Your task to perform on an android device: Check the news Image 0: 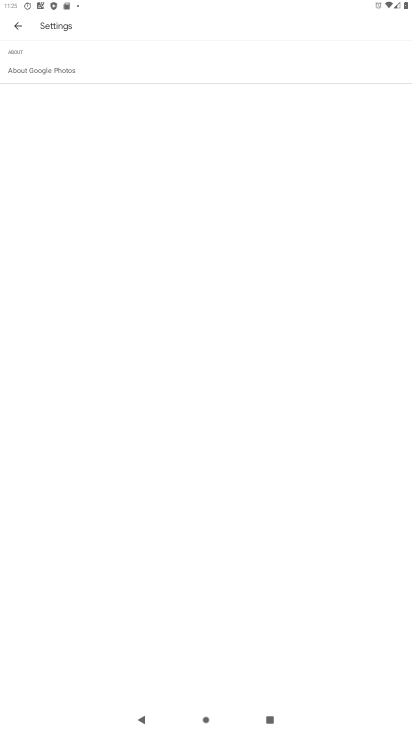
Step 0: press home button
Your task to perform on an android device: Check the news Image 1: 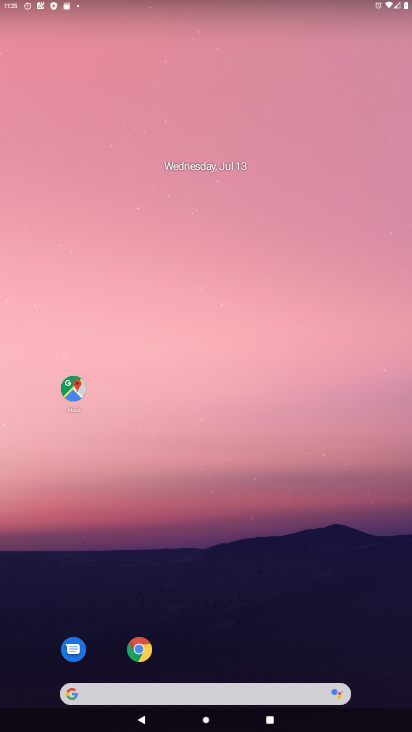
Step 1: drag from (163, 688) to (202, 170)
Your task to perform on an android device: Check the news Image 2: 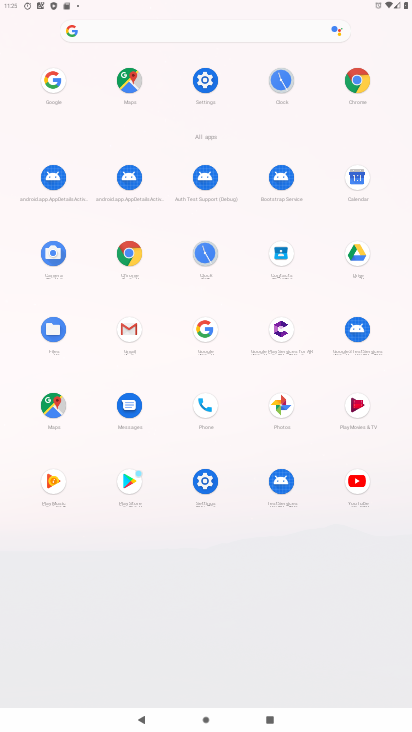
Step 2: click (50, 80)
Your task to perform on an android device: Check the news Image 3: 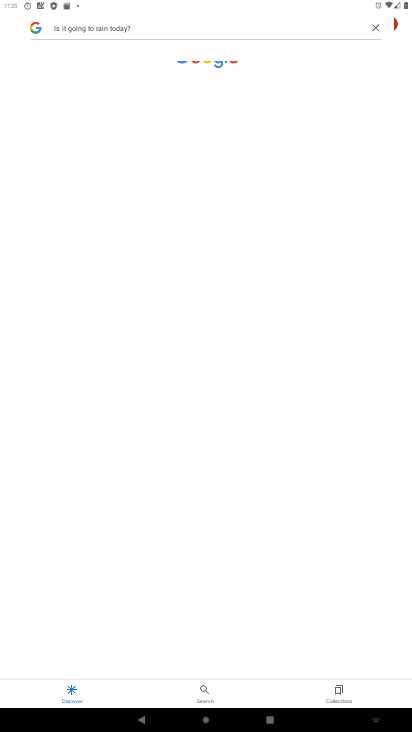
Step 3: click (374, 27)
Your task to perform on an android device: Check the news Image 4: 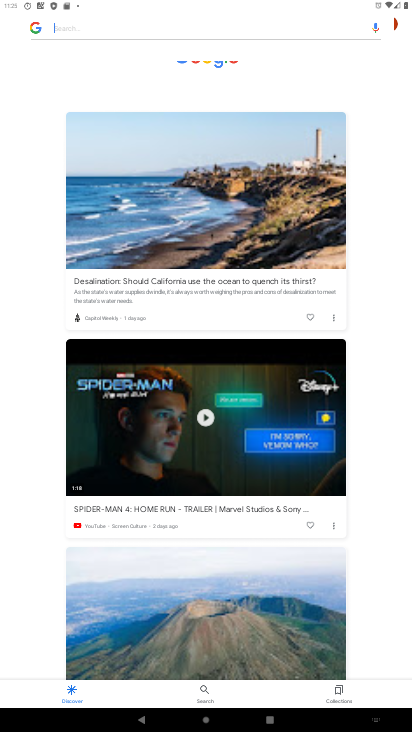
Step 4: type "news"
Your task to perform on an android device: Check the news Image 5: 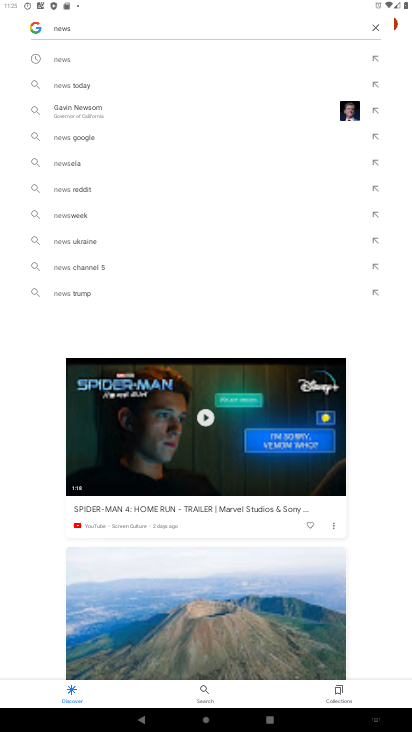
Step 5: click (69, 60)
Your task to perform on an android device: Check the news Image 6: 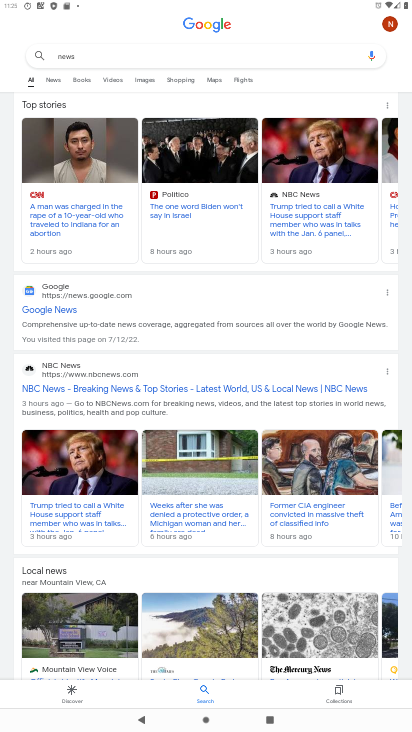
Step 6: click (45, 225)
Your task to perform on an android device: Check the news Image 7: 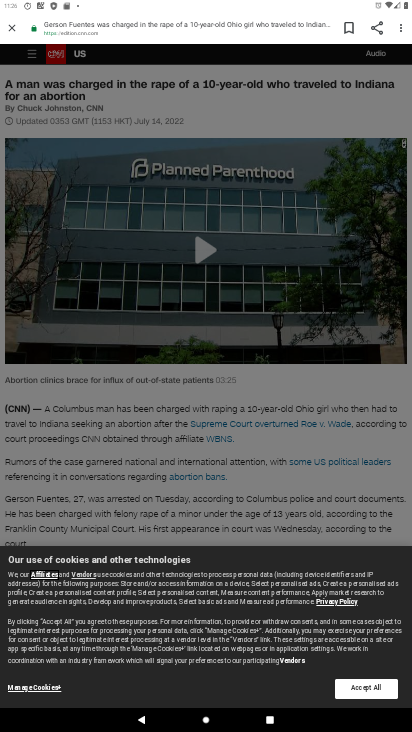
Step 7: task complete